Your task to perform on an android device: set an alarm Image 0: 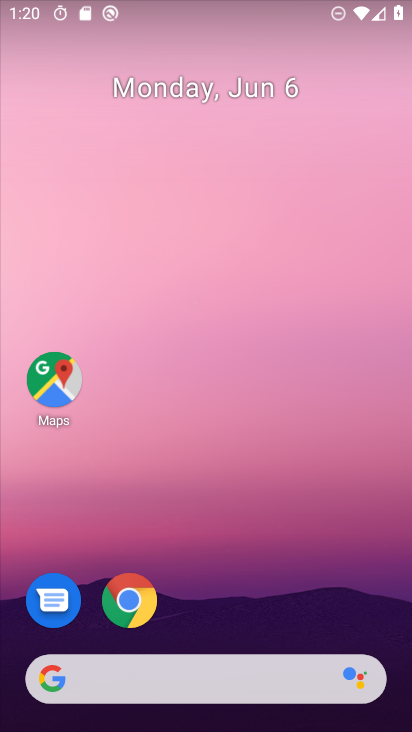
Step 0: drag from (200, 628) to (213, 152)
Your task to perform on an android device: set an alarm Image 1: 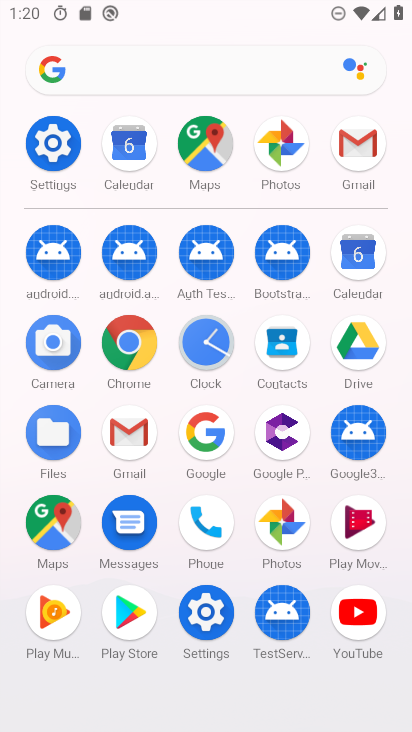
Step 1: click (207, 349)
Your task to perform on an android device: set an alarm Image 2: 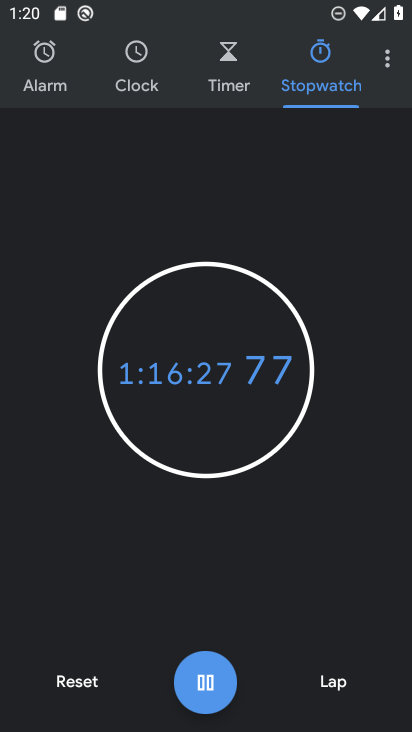
Step 2: click (53, 69)
Your task to perform on an android device: set an alarm Image 3: 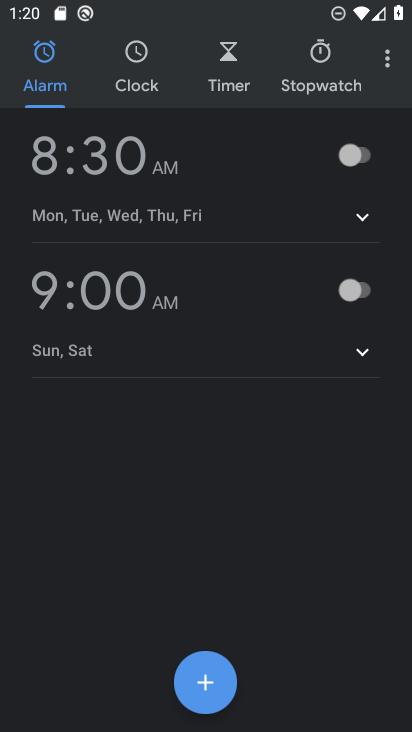
Step 3: click (356, 164)
Your task to perform on an android device: set an alarm Image 4: 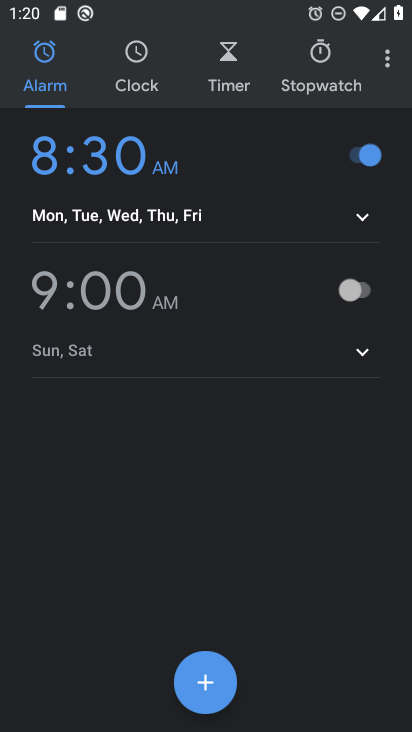
Step 4: task complete